Your task to perform on an android device: Open Wikipedia Image 0: 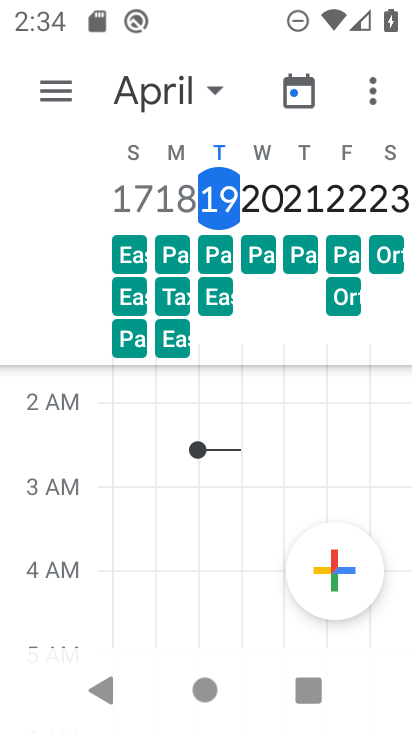
Step 0: press home button
Your task to perform on an android device: Open Wikipedia Image 1: 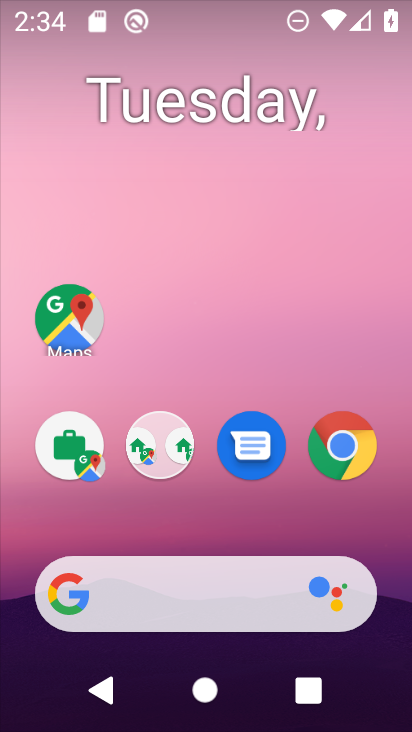
Step 1: click (330, 457)
Your task to perform on an android device: Open Wikipedia Image 2: 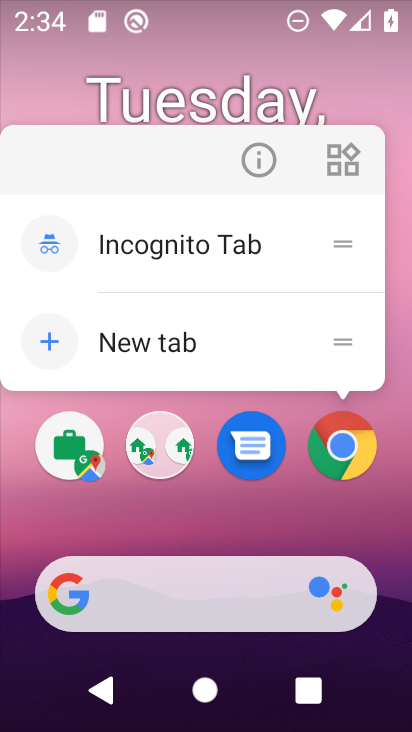
Step 2: click (260, 154)
Your task to perform on an android device: Open Wikipedia Image 3: 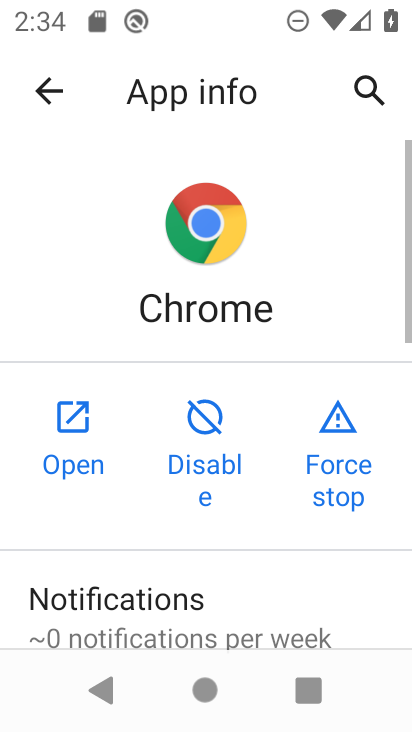
Step 3: click (78, 427)
Your task to perform on an android device: Open Wikipedia Image 4: 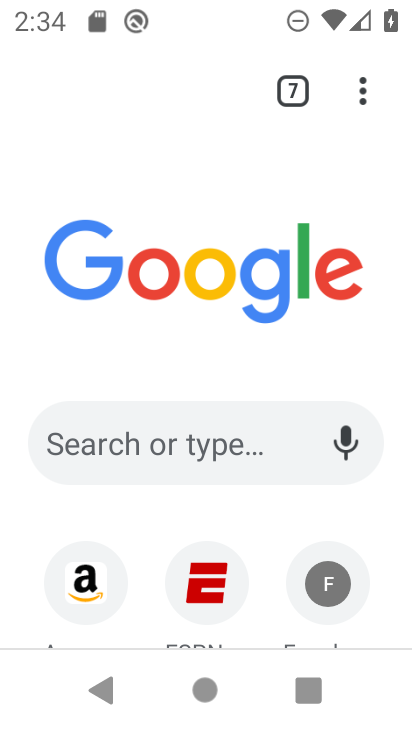
Step 4: click (129, 434)
Your task to perform on an android device: Open Wikipedia Image 5: 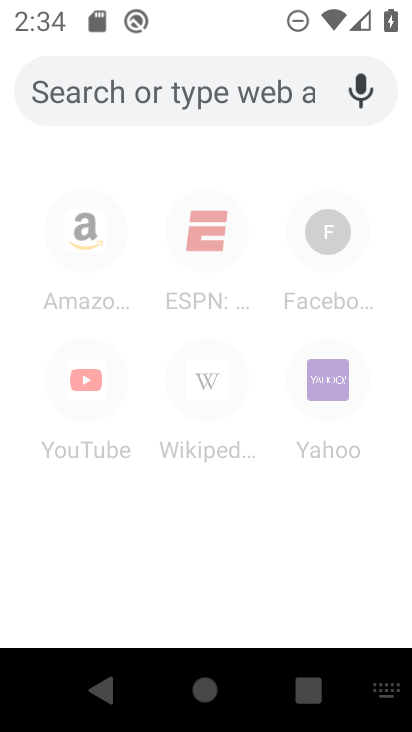
Step 5: type "Wikipedia"
Your task to perform on an android device: Open Wikipedia Image 6: 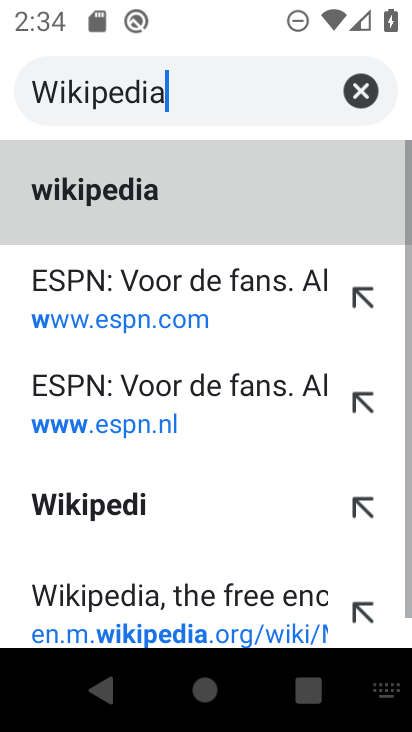
Step 6: type ""
Your task to perform on an android device: Open Wikipedia Image 7: 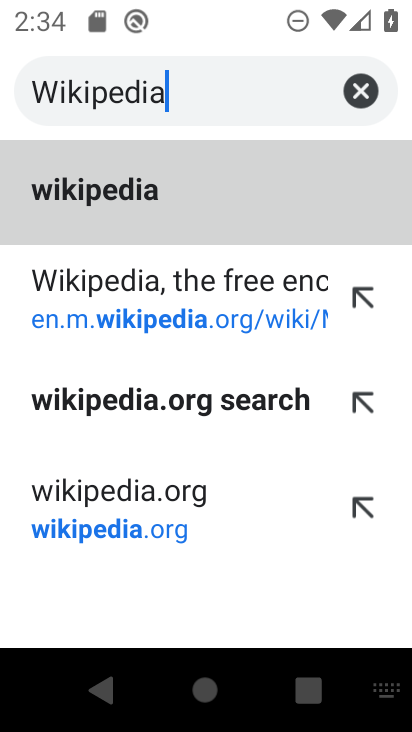
Step 7: click (166, 204)
Your task to perform on an android device: Open Wikipedia Image 8: 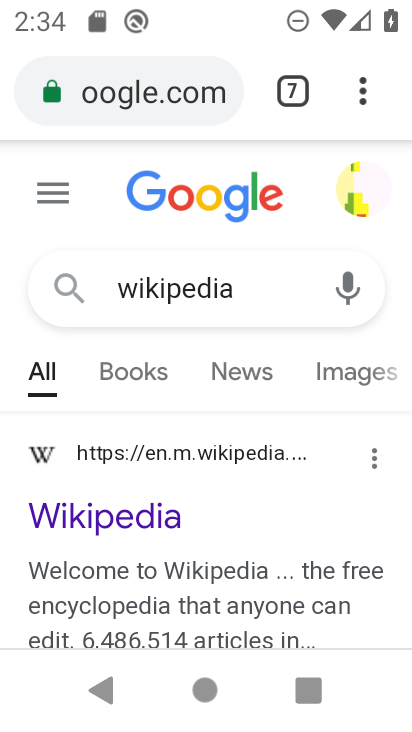
Step 8: click (92, 511)
Your task to perform on an android device: Open Wikipedia Image 9: 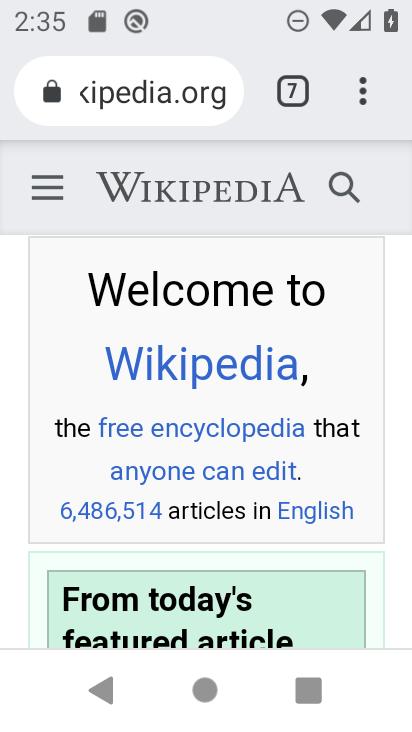
Step 9: task complete